Your task to perform on an android device: Go to Amazon Image 0: 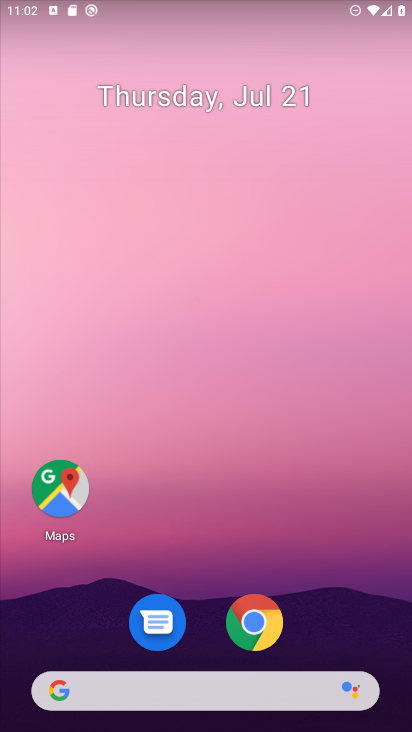
Step 0: click (267, 638)
Your task to perform on an android device: Go to Amazon Image 1: 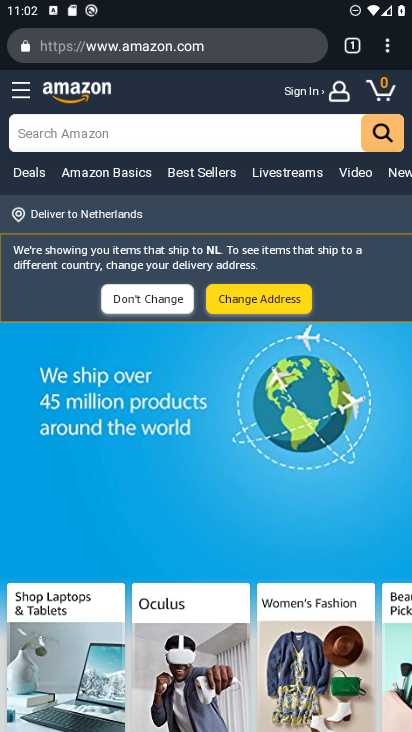
Step 1: task complete